Your task to perform on an android device: Check the weather Image 0: 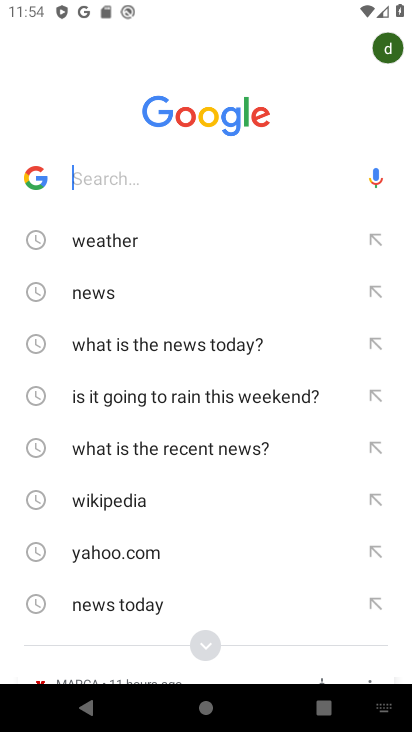
Step 0: click (137, 246)
Your task to perform on an android device: Check the weather Image 1: 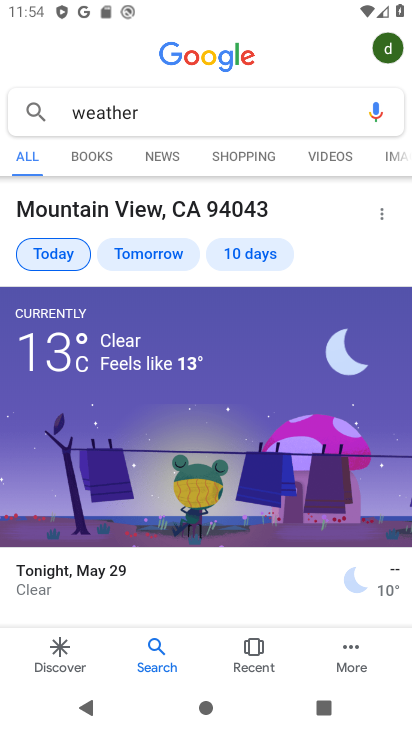
Step 1: task complete